Your task to perform on an android device: Show me recent news Image 0: 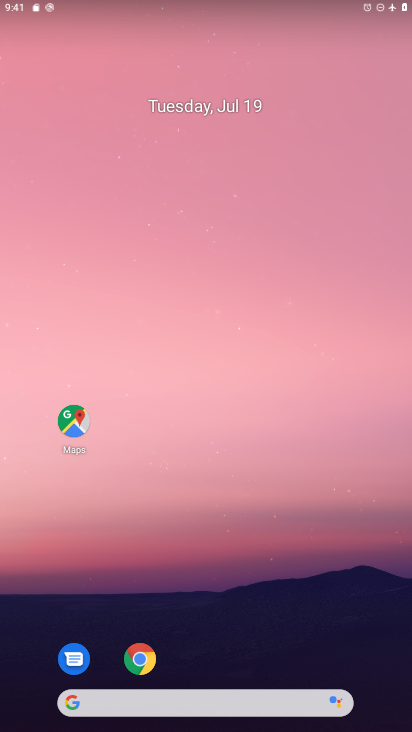
Step 0: drag from (270, 659) to (250, 195)
Your task to perform on an android device: Show me recent news Image 1: 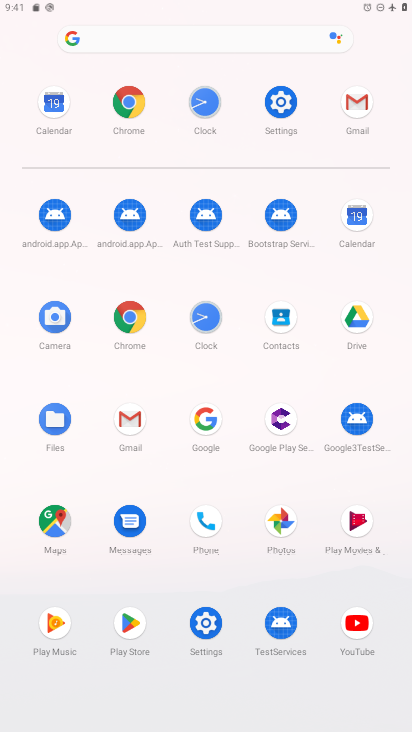
Step 1: click (124, 91)
Your task to perform on an android device: Show me recent news Image 2: 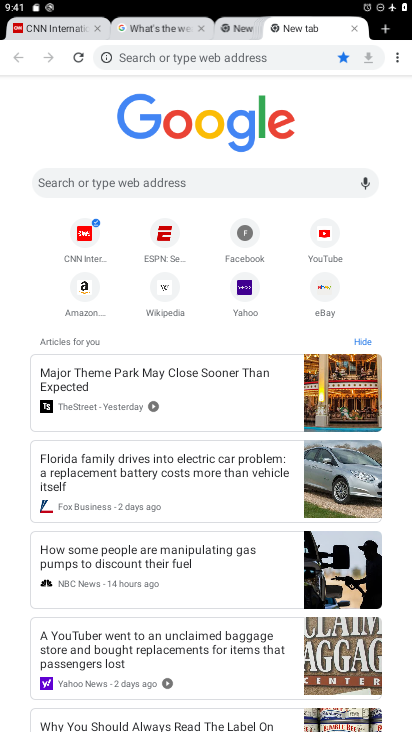
Step 2: click (204, 173)
Your task to perform on an android device: Show me recent news Image 3: 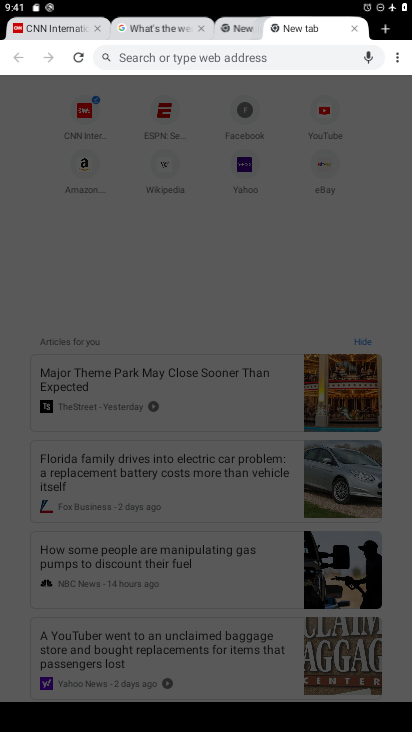
Step 3: type "Show me recent news "
Your task to perform on an android device: Show me recent news Image 4: 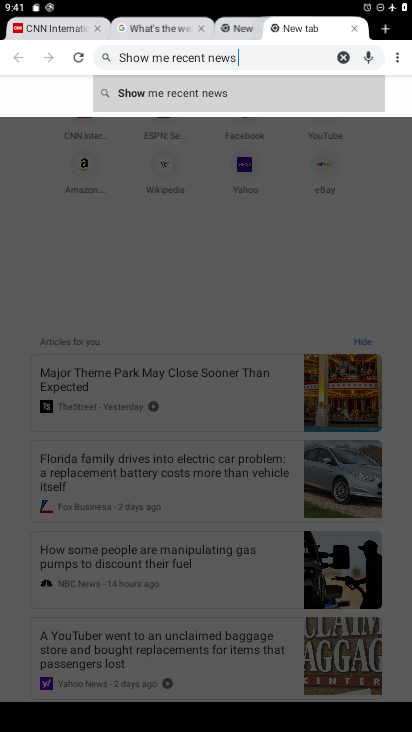
Step 4: click (229, 97)
Your task to perform on an android device: Show me recent news Image 5: 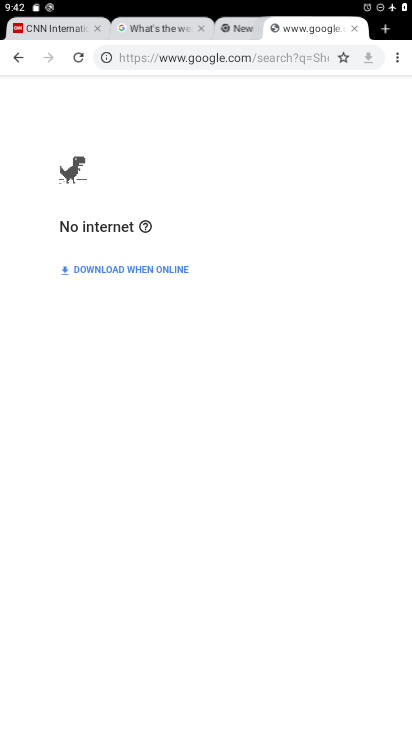
Step 5: task complete